Your task to perform on an android device: change your default location settings in chrome Image 0: 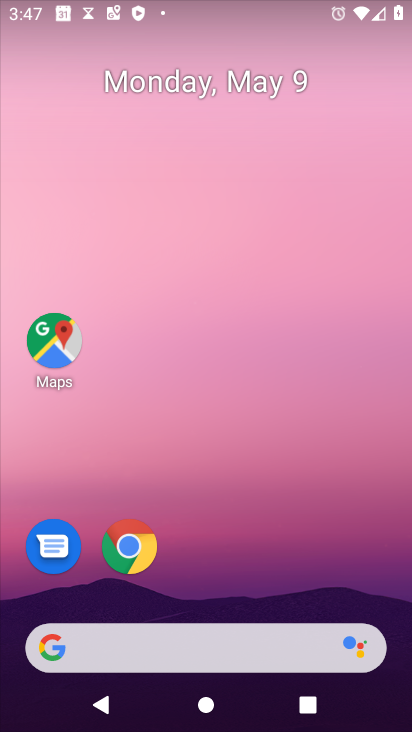
Step 0: drag from (318, 526) to (281, 149)
Your task to perform on an android device: change your default location settings in chrome Image 1: 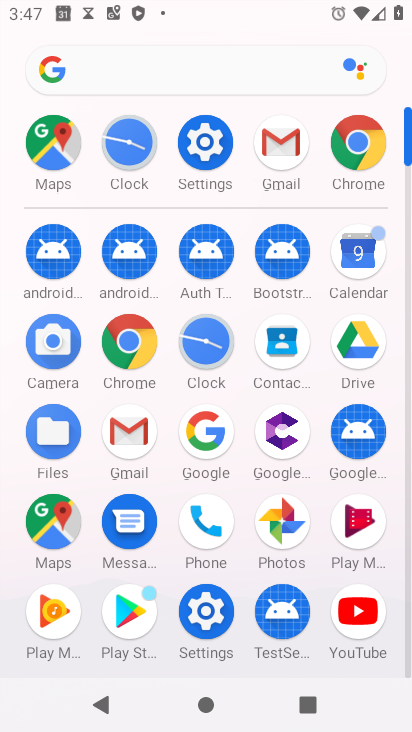
Step 1: click (359, 163)
Your task to perform on an android device: change your default location settings in chrome Image 2: 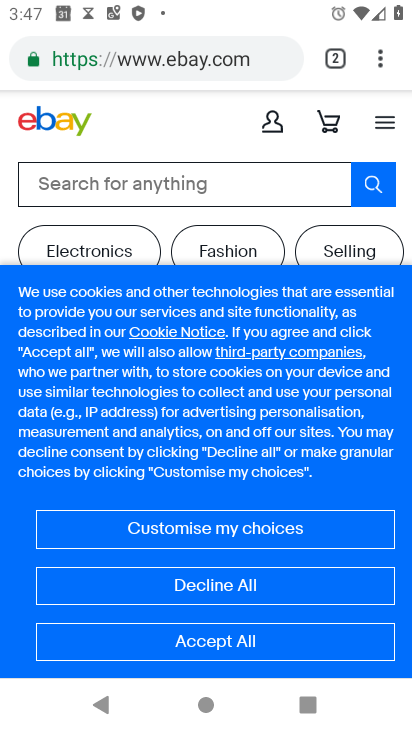
Step 2: drag from (383, 59) to (191, 578)
Your task to perform on an android device: change your default location settings in chrome Image 3: 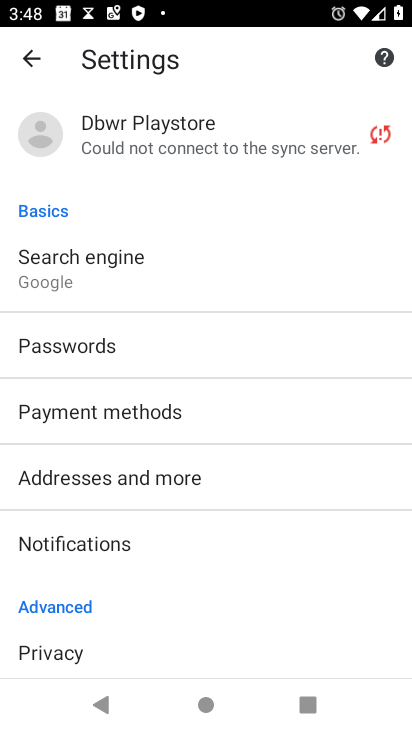
Step 3: drag from (207, 615) to (175, 374)
Your task to perform on an android device: change your default location settings in chrome Image 4: 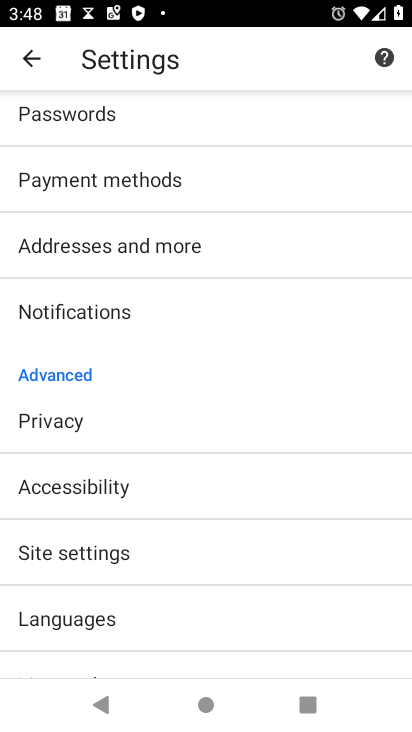
Step 4: drag from (157, 579) to (108, 301)
Your task to perform on an android device: change your default location settings in chrome Image 5: 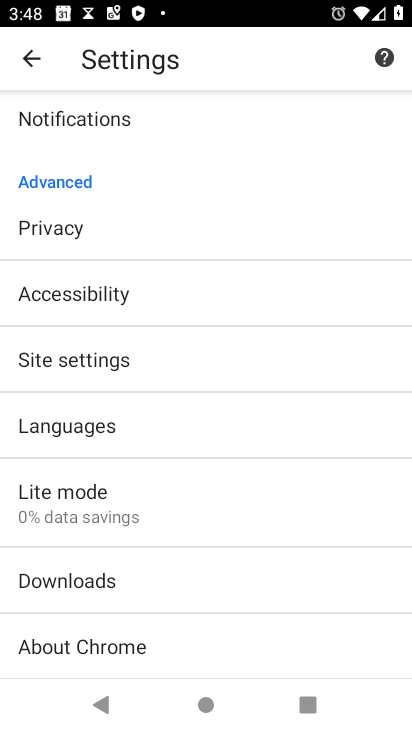
Step 5: drag from (127, 614) to (117, 299)
Your task to perform on an android device: change your default location settings in chrome Image 6: 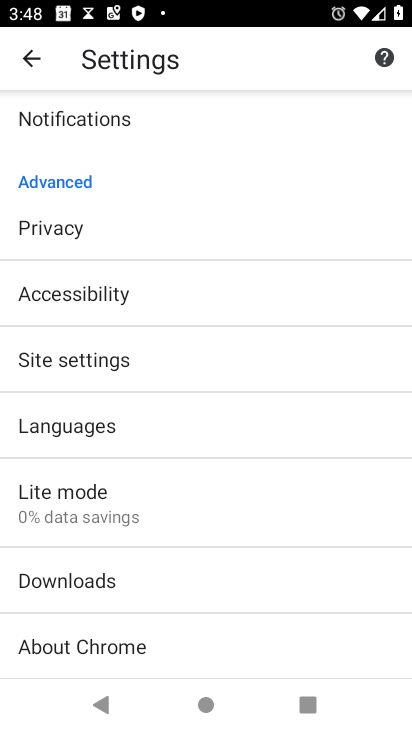
Step 6: click (128, 359)
Your task to perform on an android device: change your default location settings in chrome Image 7: 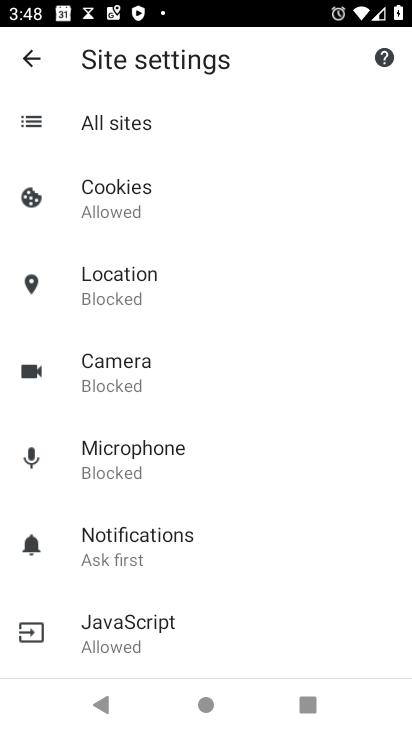
Step 7: click (99, 277)
Your task to perform on an android device: change your default location settings in chrome Image 8: 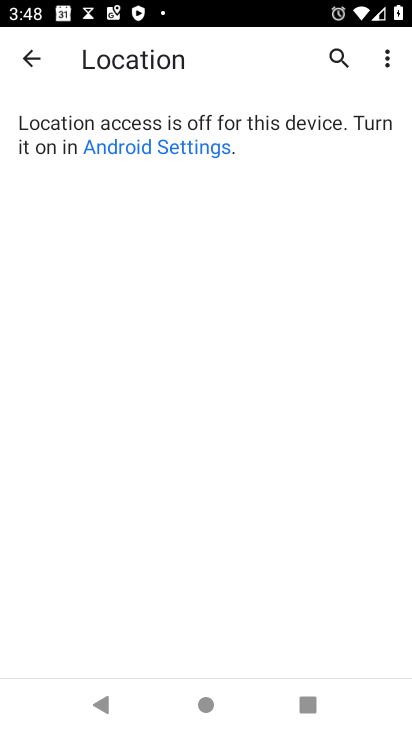
Step 8: click (195, 153)
Your task to perform on an android device: change your default location settings in chrome Image 9: 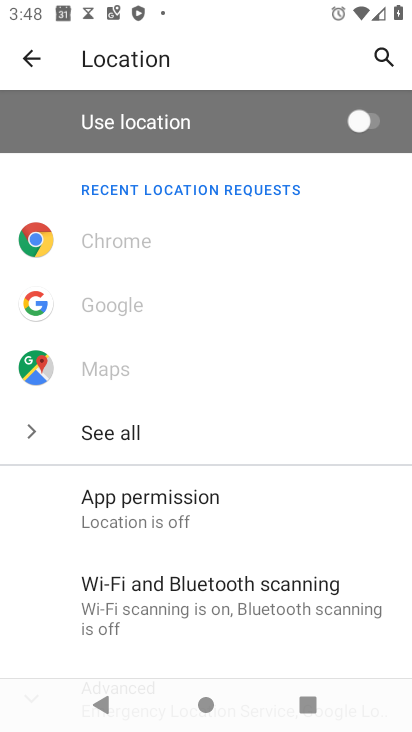
Step 9: click (353, 128)
Your task to perform on an android device: change your default location settings in chrome Image 10: 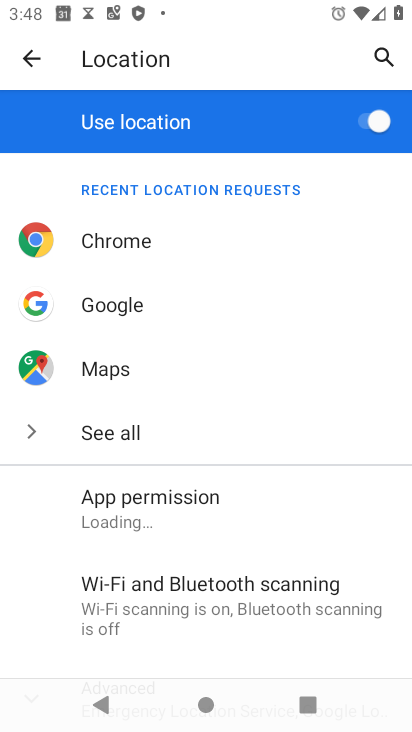
Step 10: task complete